Your task to perform on an android device: Go to Reddit.com Image 0: 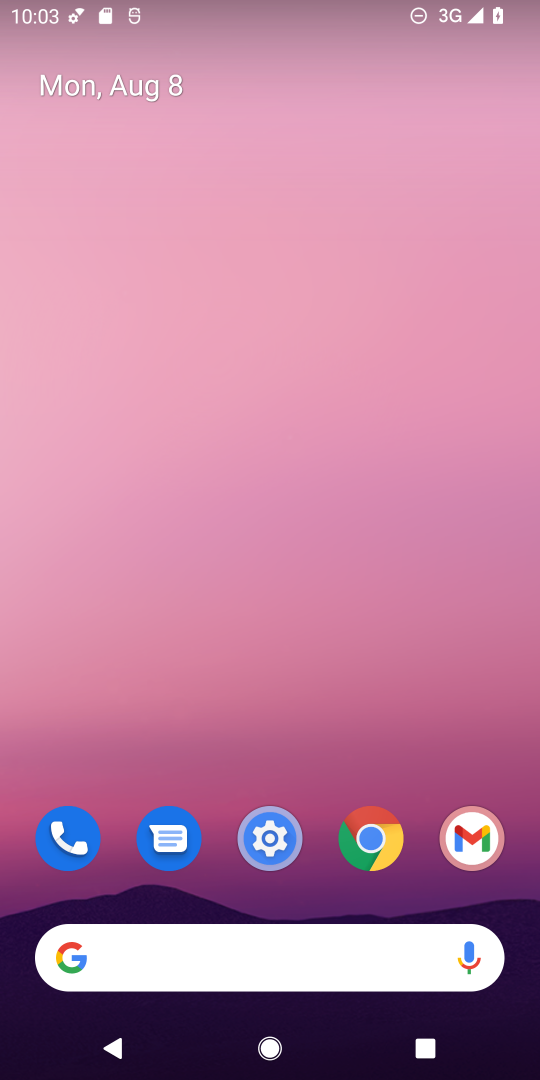
Step 0: press home button
Your task to perform on an android device: Go to Reddit.com Image 1: 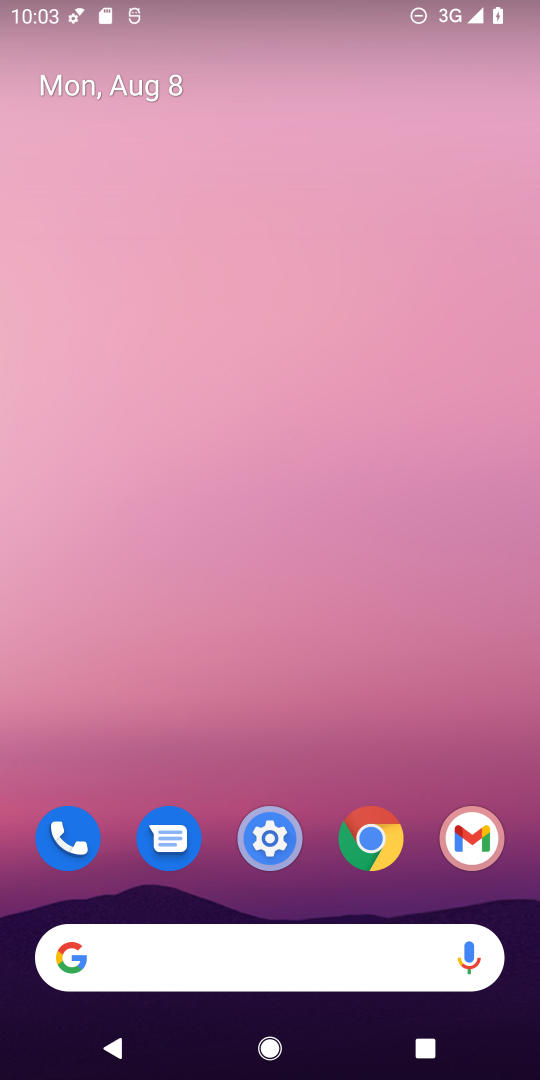
Step 1: click (64, 959)
Your task to perform on an android device: Go to Reddit.com Image 2: 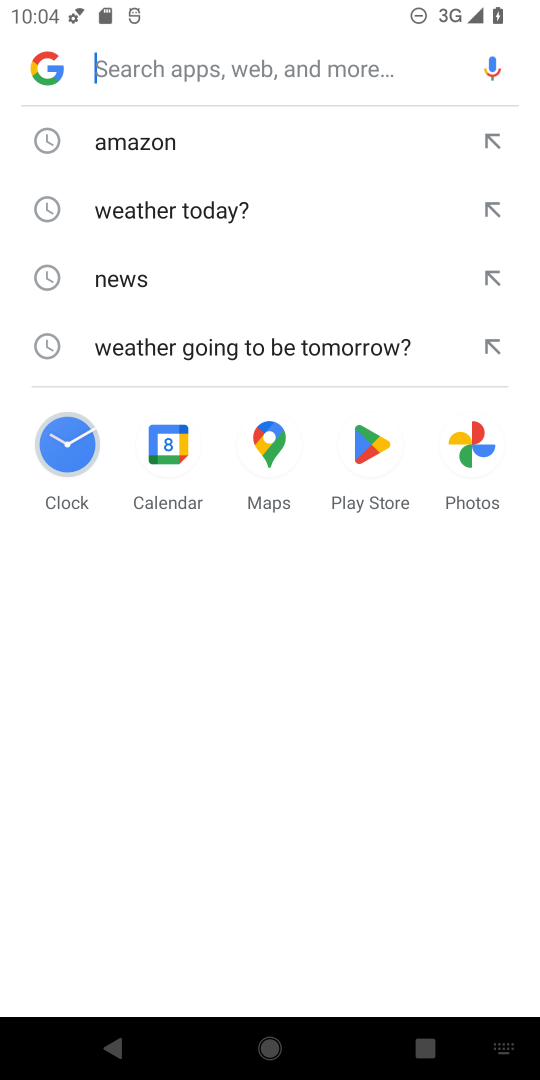
Step 2: type "Reddit.com"
Your task to perform on an android device: Go to Reddit.com Image 3: 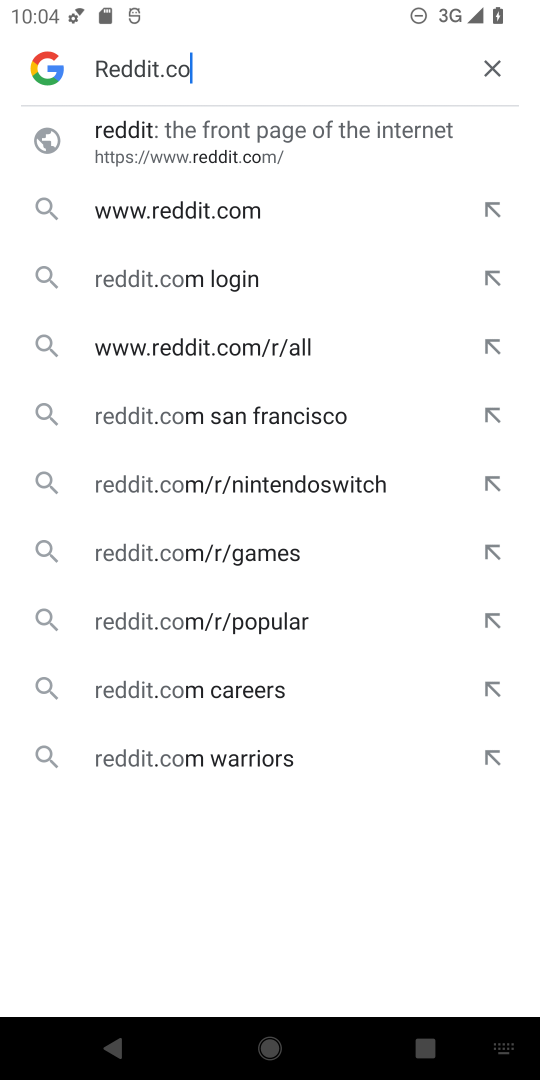
Step 3: press enter
Your task to perform on an android device: Go to Reddit.com Image 4: 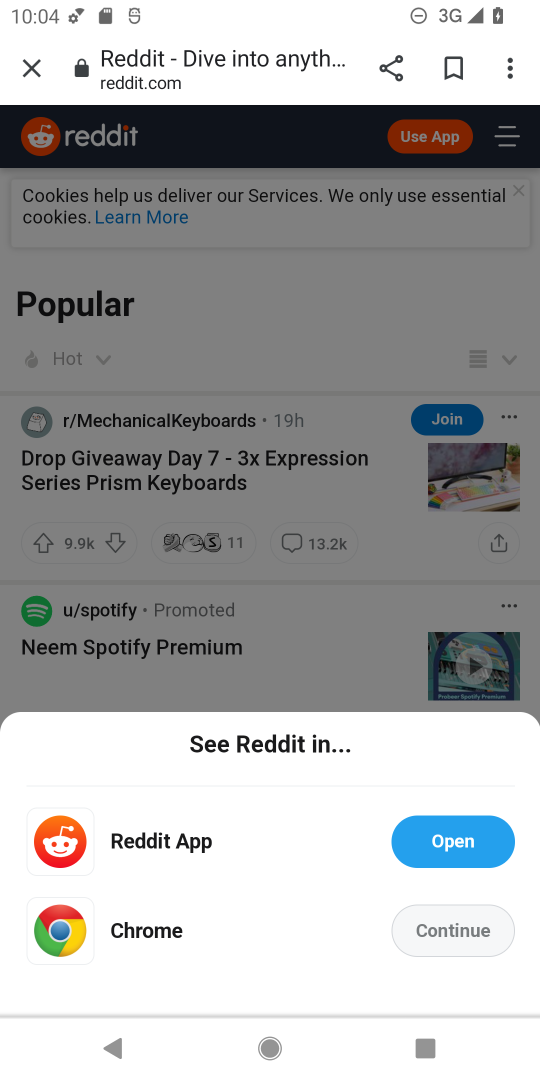
Step 4: task complete